Your task to perform on an android device: Open sound settings Image 0: 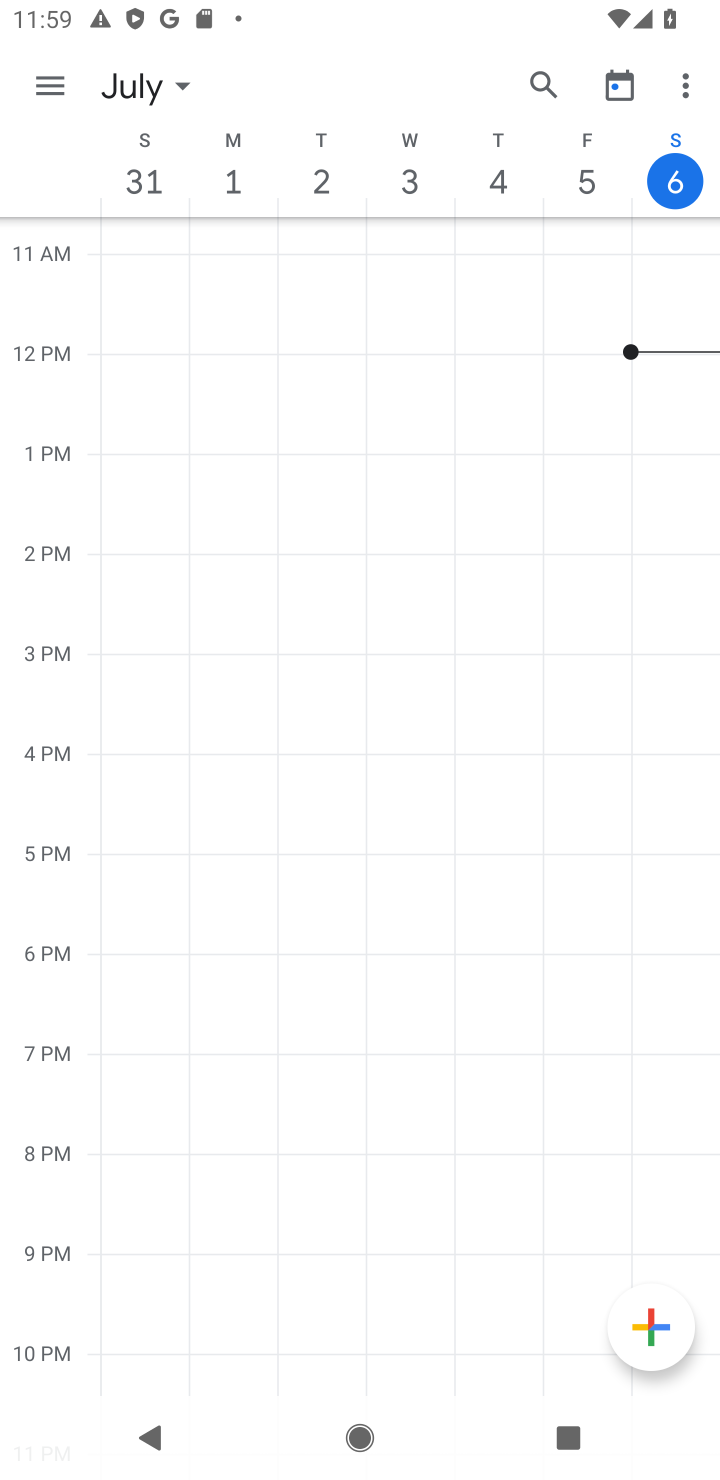
Step 0: press home button
Your task to perform on an android device: Open sound settings Image 1: 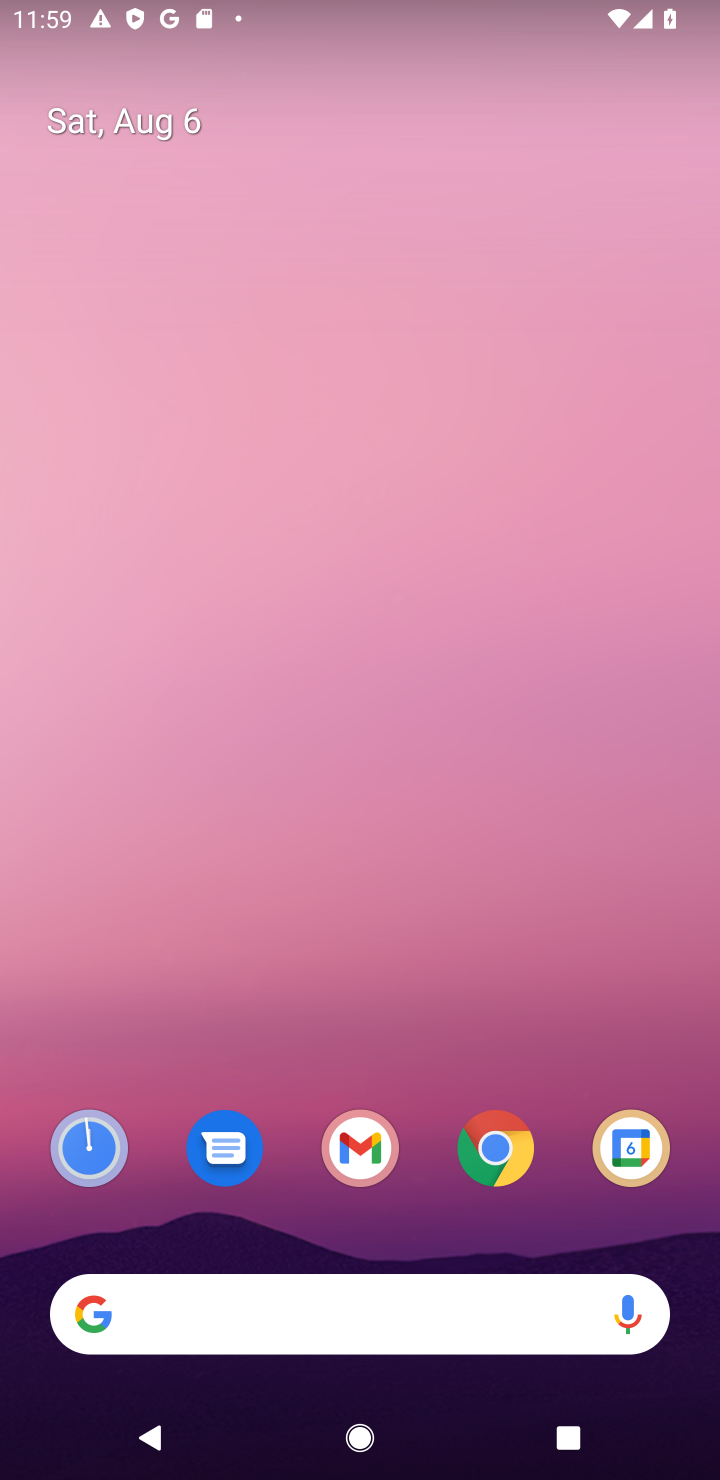
Step 1: drag from (384, 995) to (395, 130)
Your task to perform on an android device: Open sound settings Image 2: 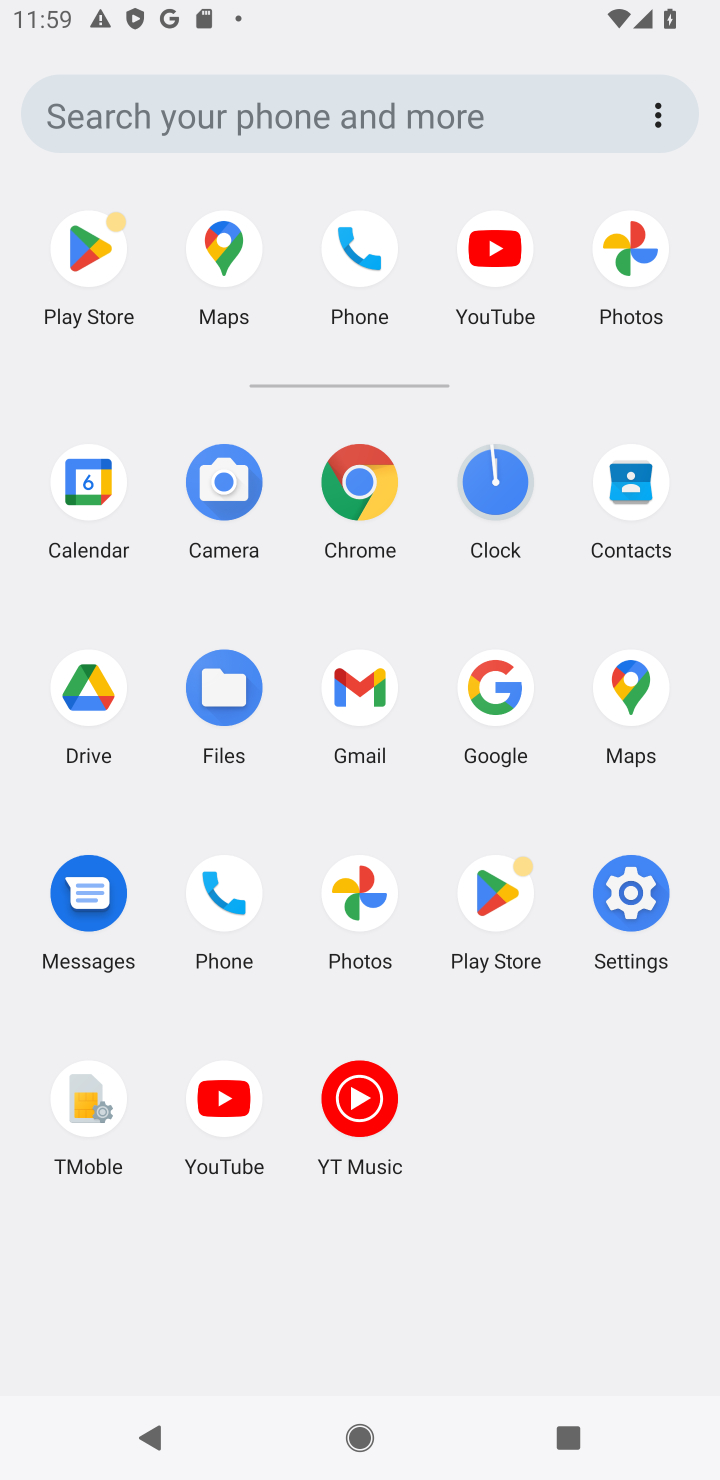
Step 2: click (625, 896)
Your task to perform on an android device: Open sound settings Image 3: 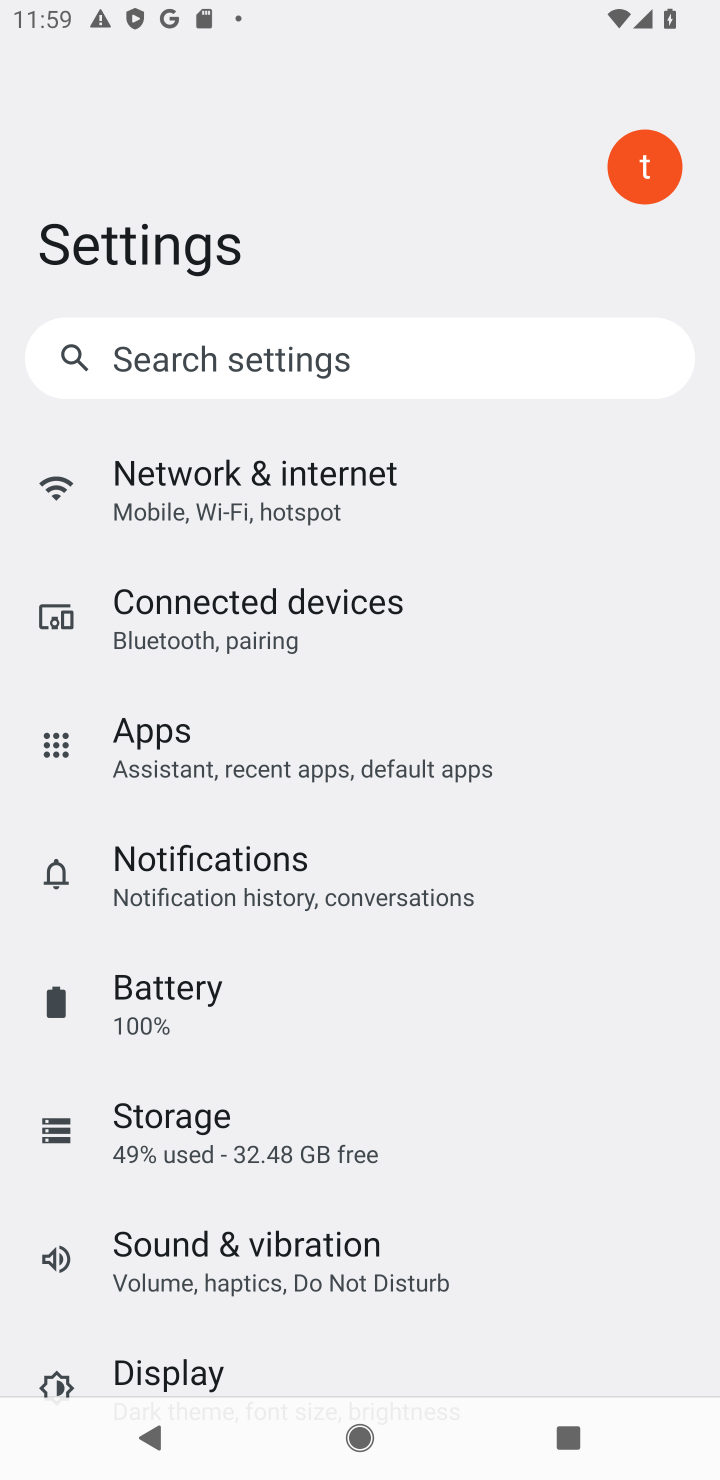
Step 3: click (200, 1263)
Your task to perform on an android device: Open sound settings Image 4: 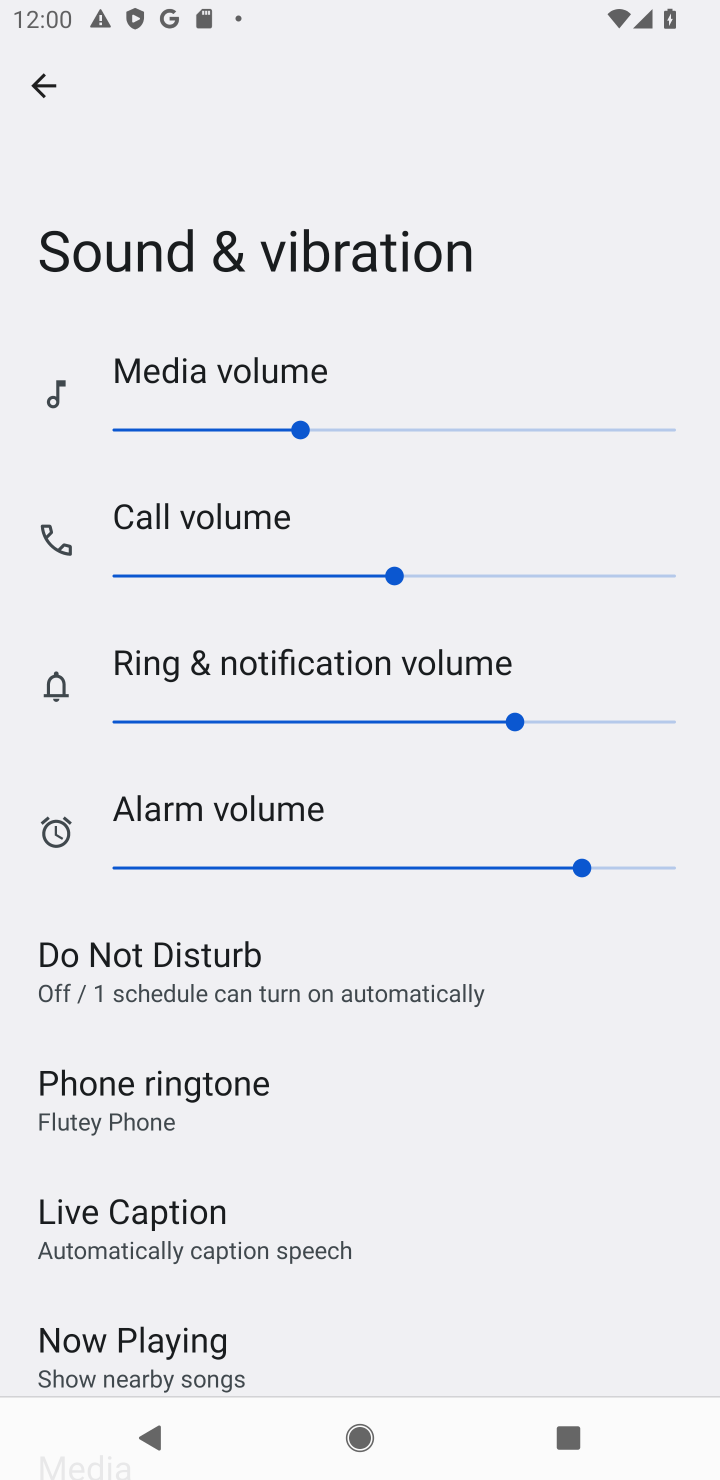
Step 4: task complete